Your task to perform on an android device: turn pop-ups off in chrome Image 0: 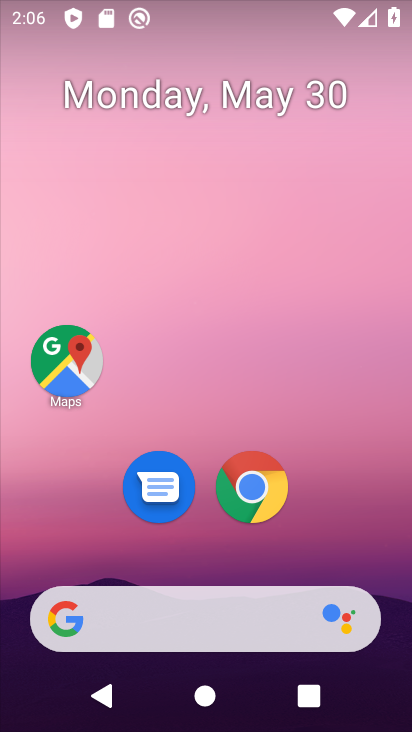
Step 0: click (243, 492)
Your task to perform on an android device: turn pop-ups off in chrome Image 1: 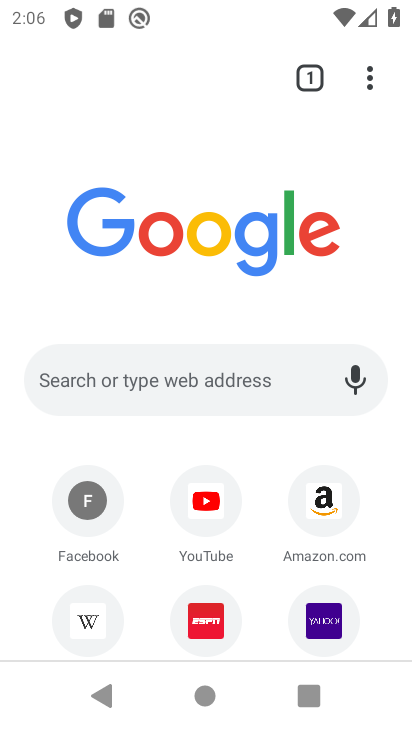
Step 1: click (374, 86)
Your task to perform on an android device: turn pop-ups off in chrome Image 2: 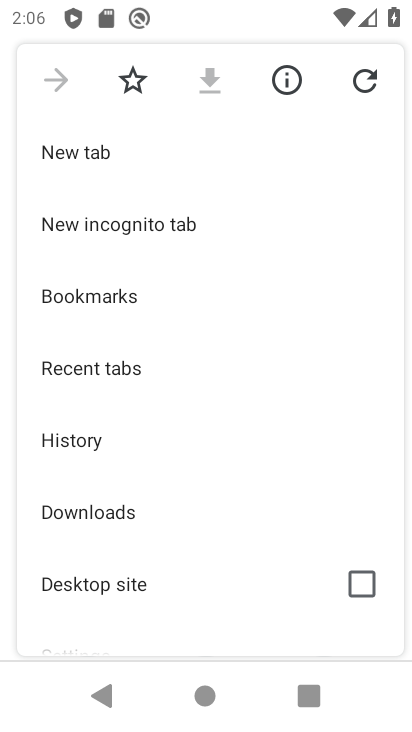
Step 2: drag from (148, 290) to (153, 248)
Your task to perform on an android device: turn pop-ups off in chrome Image 3: 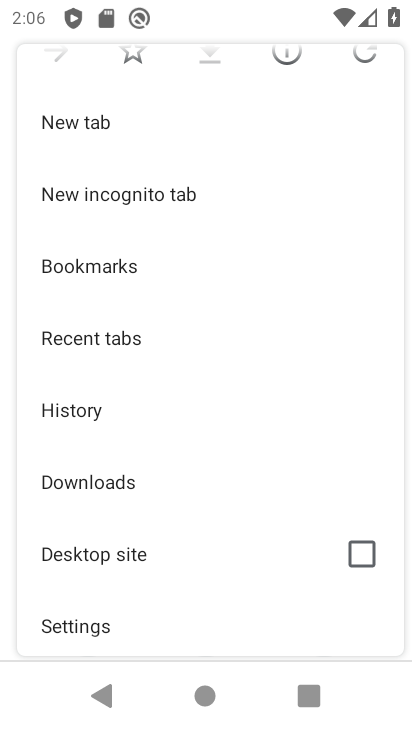
Step 3: drag from (139, 591) to (163, 281)
Your task to perform on an android device: turn pop-ups off in chrome Image 4: 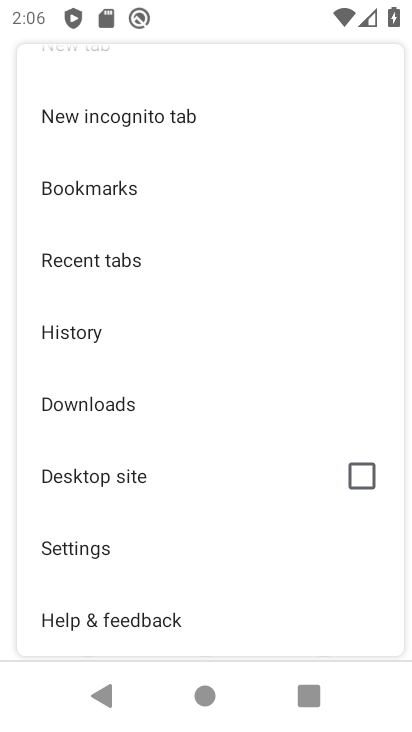
Step 4: click (73, 553)
Your task to perform on an android device: turn pop-ups off in chrome Image 5: 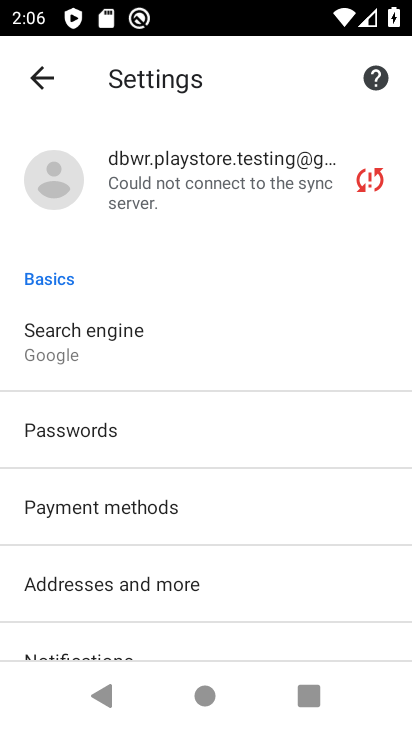
Step 5: drag from (148, 591) to (148, 233)
Your task to perform on an android device: turn pop-ups off in chrome Image 6: 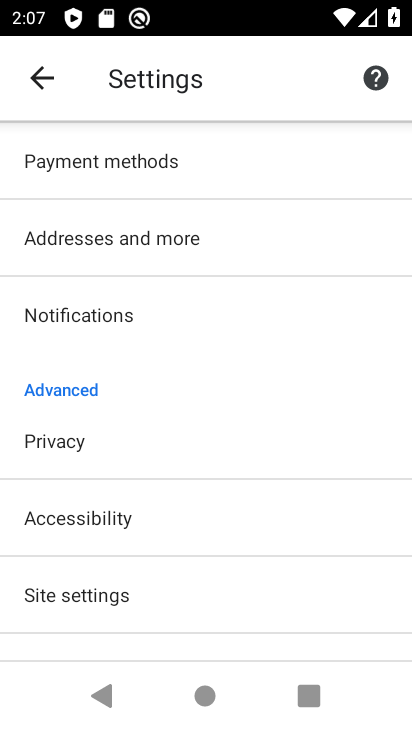
Step 6: click (71, 596)
Your task to perform on an android device: turn pop-ups off in chrome Image 7: 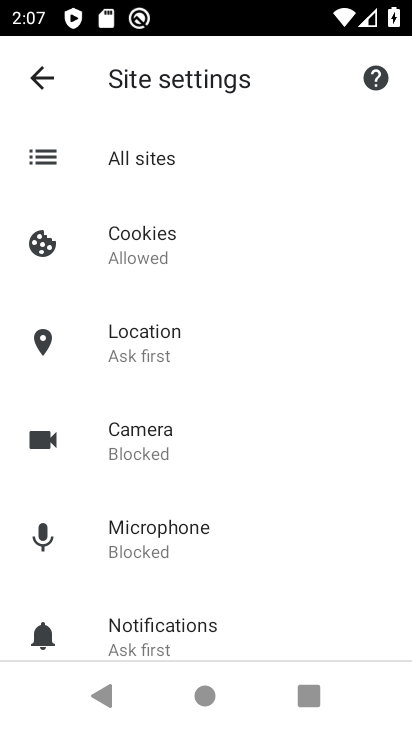
Step 7: drag from (166, 585) to (217, 184)
Your task to perform on an android device: turn pop-ups off in chrome Image 8: 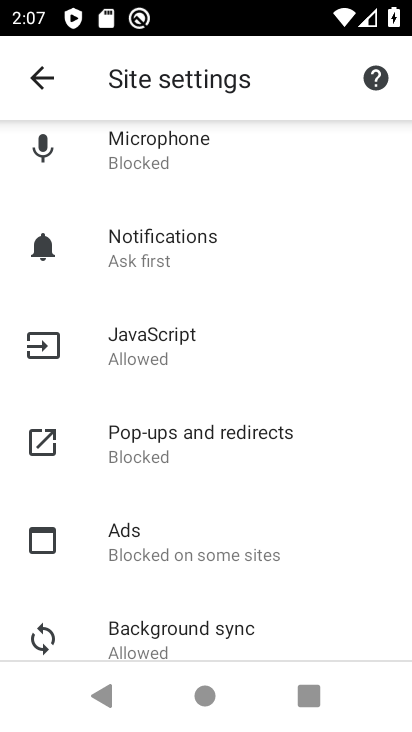
Step 8: click (134, 448)
Your task to perform on an android device: turn pop-ups off in chrome Image 9: 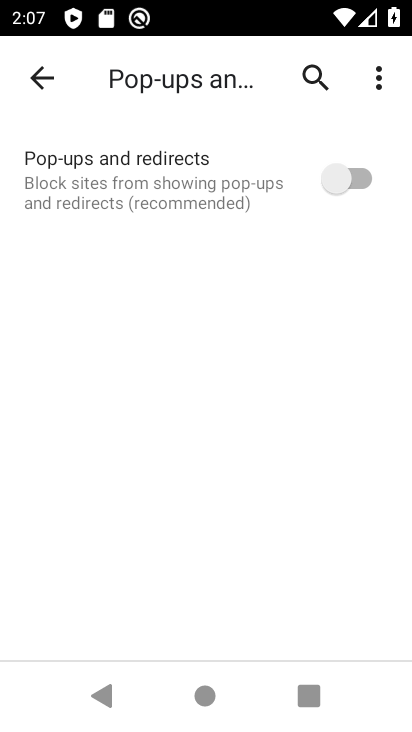
Step 9: task complete